Your task to perform on an android device: Go to Google Image 0: 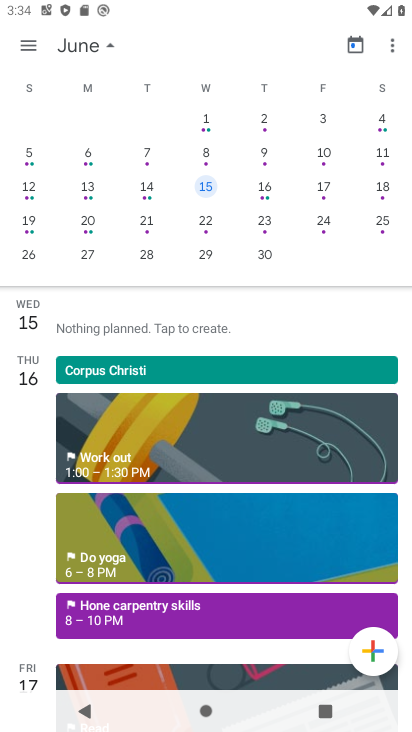
Step 0: press home button
Your task to perform on an android device: Go to Google Image 1: 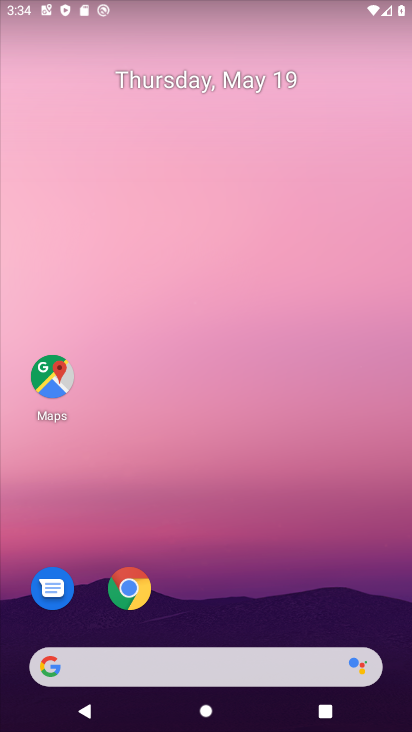
Step 1: click (244, 658)
Your task to perform on an android device: Go to Google Image 2: 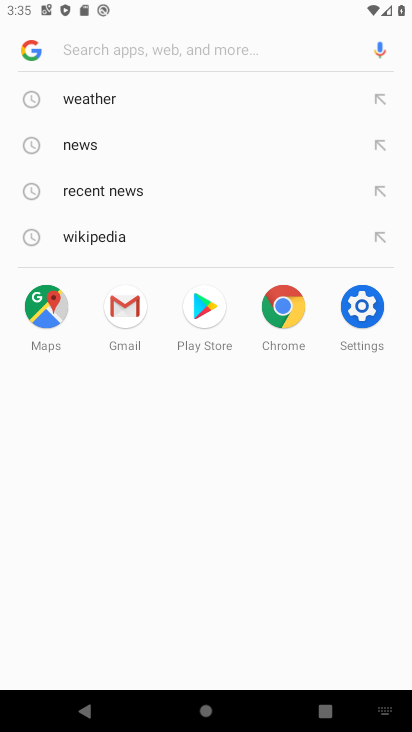
Step 2: task complete